Your task to perform on an android device: find snoozed emails in the gmail app Image 0: 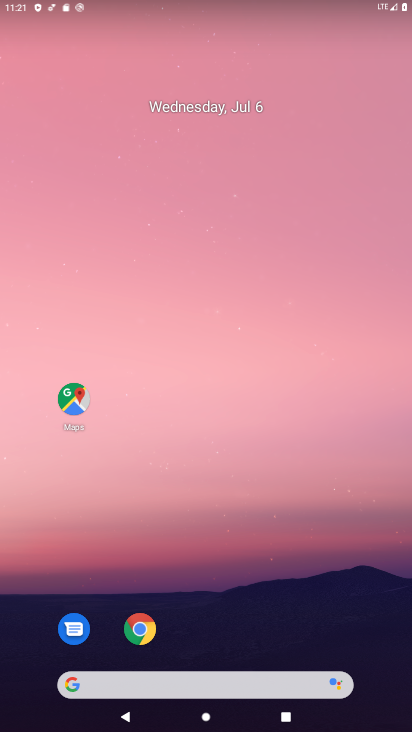
Step 0: drag from (199, 644) to (194, 94)
Your task to perform on an android device: find snoozed emails in the gmail app Image 1: 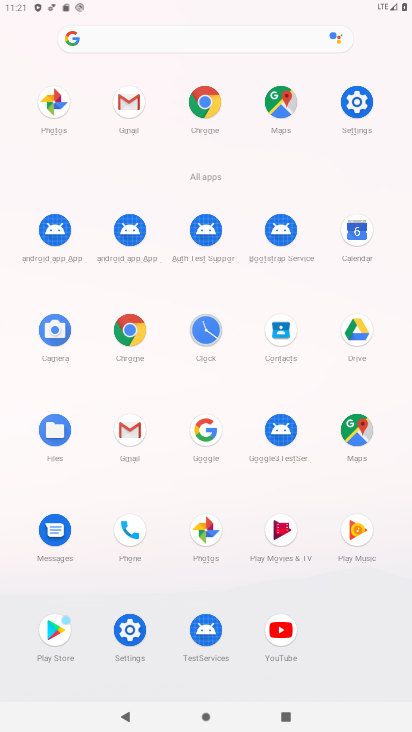
Step 1: click (118, 120)
Your task to perform on an android device: find snoozed emails in the gmail app Image 2: 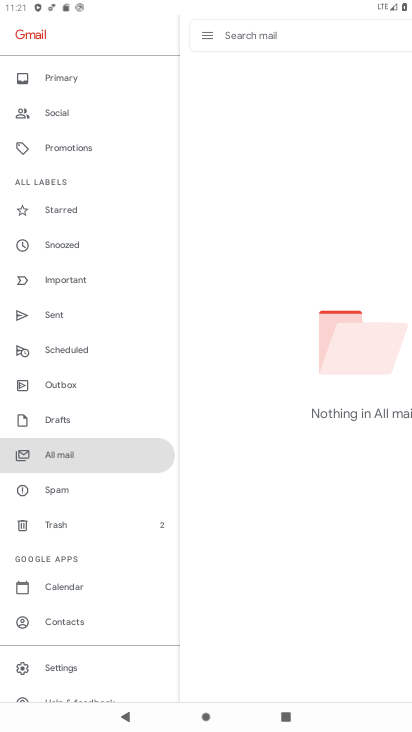
Step 2: click (73, 245)
Your task to perform on an android device: find snoozed emails in the gmail app Image 3: 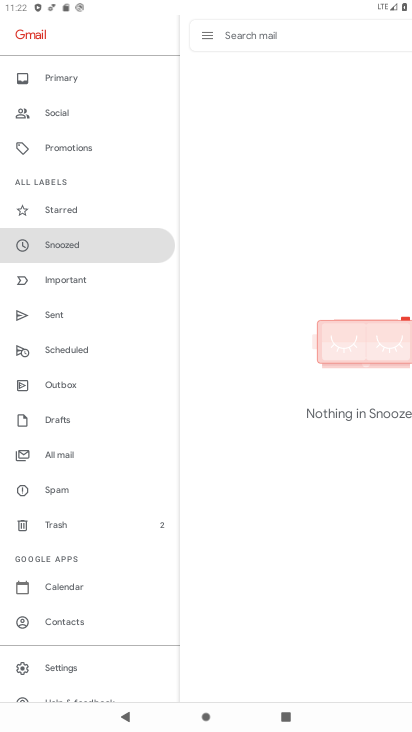
Step 3: task complete